Your task to perform on an android device: toggle pop-ups in chrome Image 0: 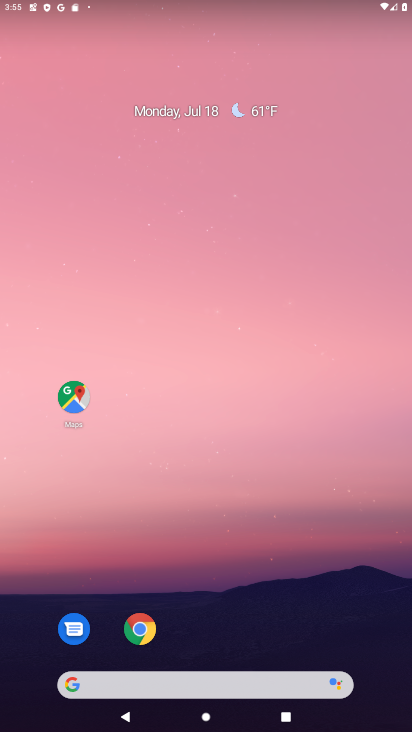
Step 0: click (147, 628)
Your task to perform on an android device: toggle pop-ups in chrome Image 1: 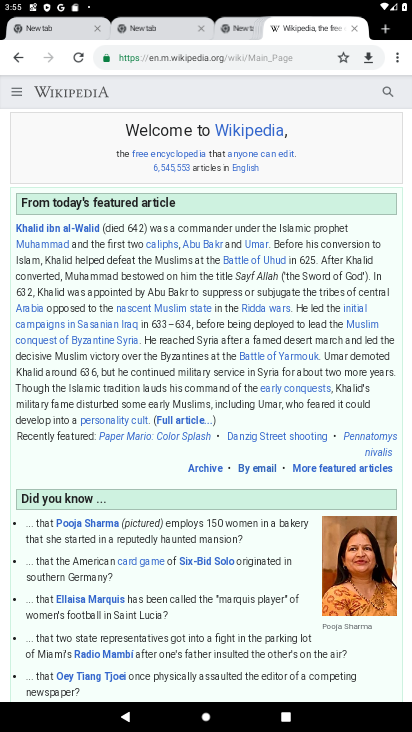
Step 1: click (402, 50)
Your task to perform on an android device: toggle pop-ups in chrome Image 2: 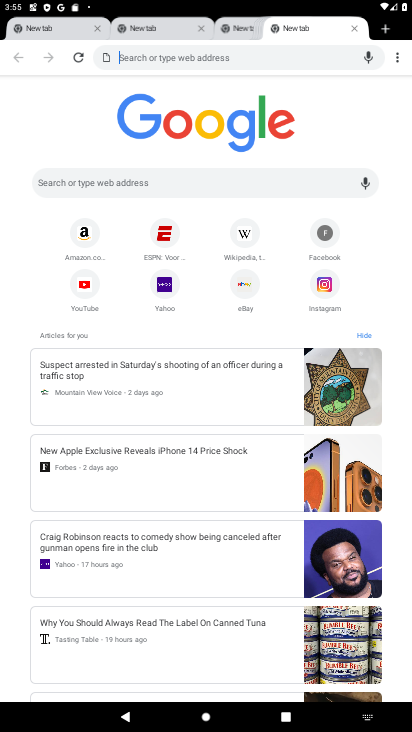
Step 2: click (395, 53)
Your task to perform on an android device: toggle pop-ups in chrome Image 3: 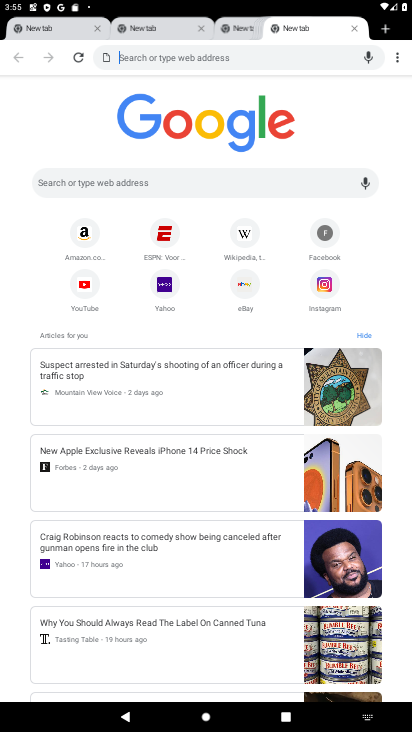
Step 3: click (392, 61)
Your task to perform on an android device: toggle pop-ups in chrome Image 4: 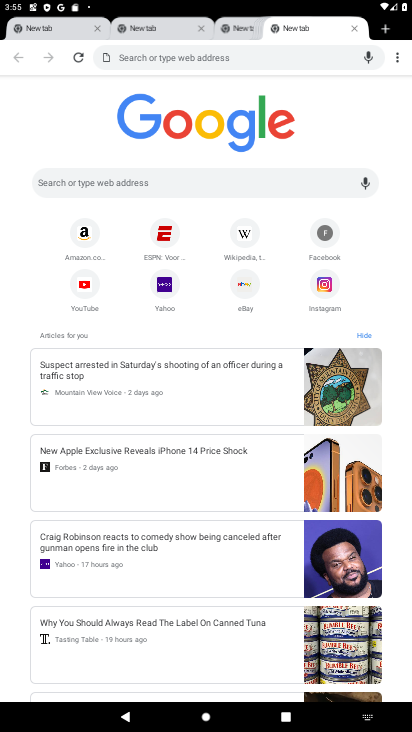
Step 4: click (395, 59)
Your task to perform on an android device: toggle pop-ups in chrome Image 5: 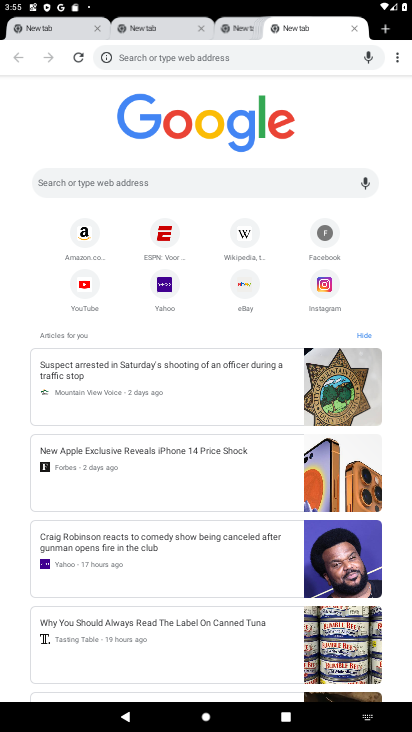
Step 5: click (354, 22)
Your task to perform on an android device: toggle pop-ups in chrome Image 6: 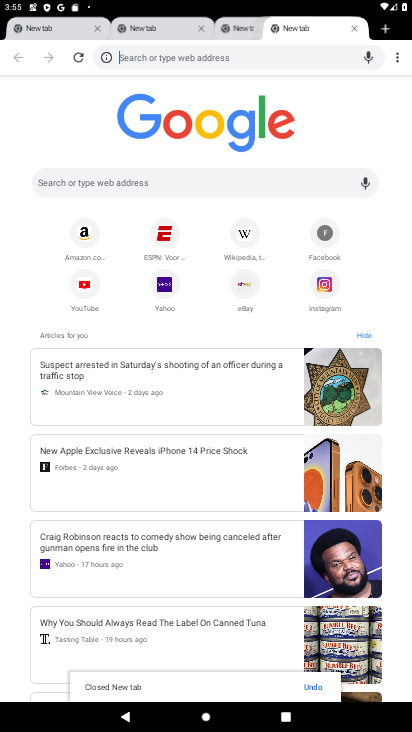
Step 6: click (354, 30)
Your task to perform on an android device: toggle pop-ups in chrome Image 7: 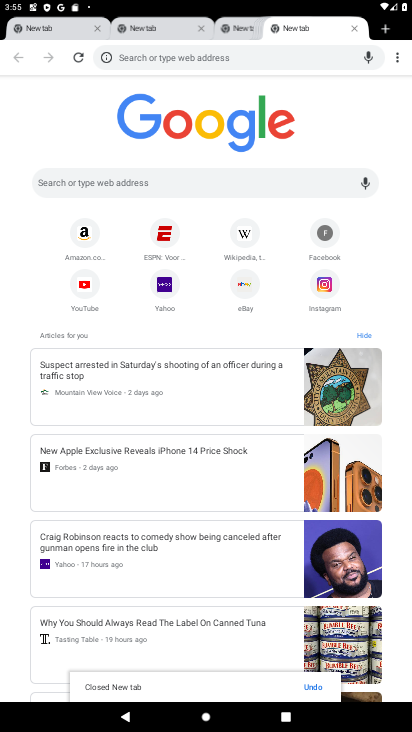
Step 7: click (354, 30)
Your task to perform on an android device: toggle pop-ups in chrome Image 8: 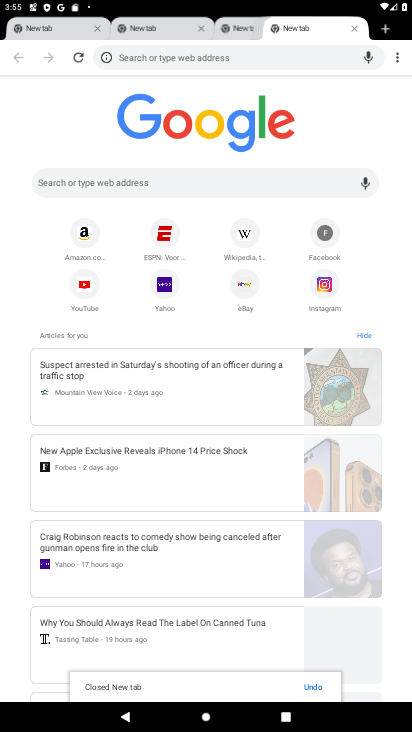
Step 8: click (354, 30)
Your task to perform on an android device: toggle pop-ups in chrome Image 9: 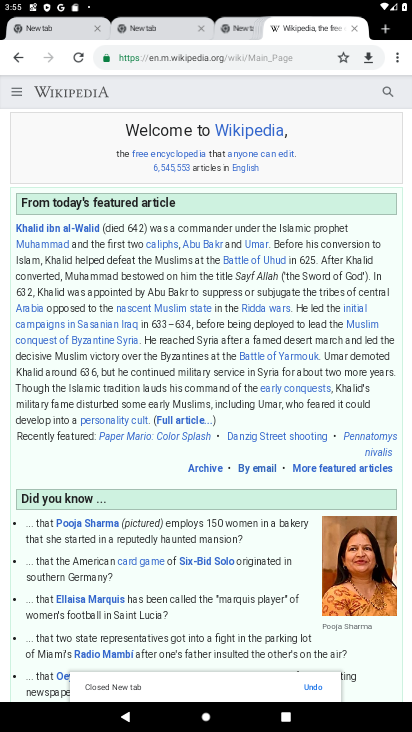
Step 9: click (354, 30)
Your task to perform on an android device: toggle pop-ups in chrome Image 10: 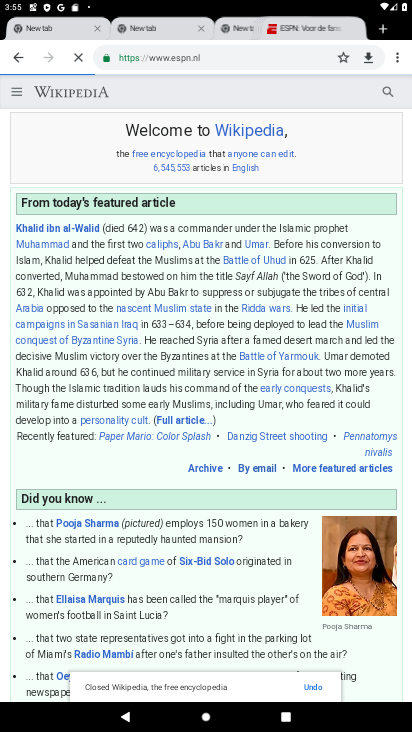
Step 10: click (354, 30)
Your task to perform on an android device: toggle pop-ups in chrome Image 11: 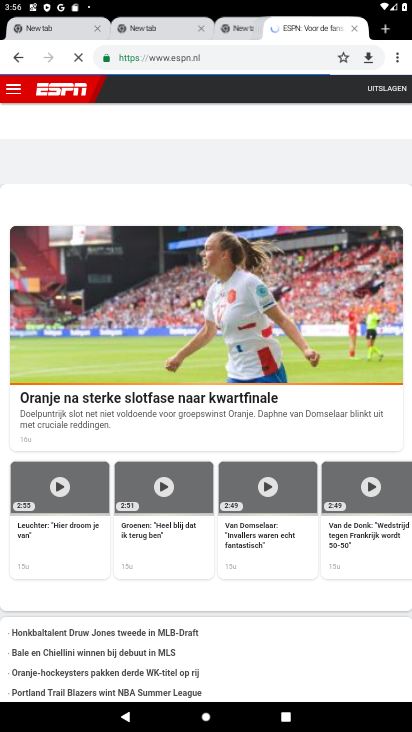
Step 11: click (358, 29)
Your task to perform on an android device: toggle pop-ups in chrome Image 12: 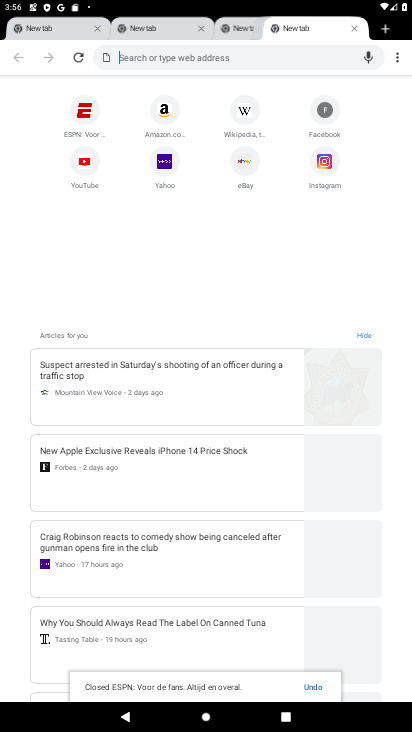
Step 12: click (357, 32)
Your task to perform on an android device: toggle pop-ups in chrome Image 13: 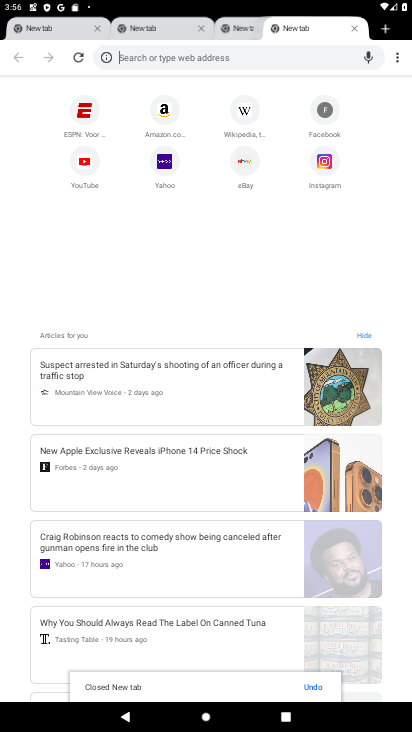
Step 13: click (357, 26)
Your task to perform on an android device: toggle pop-ups in chrome Image 14: 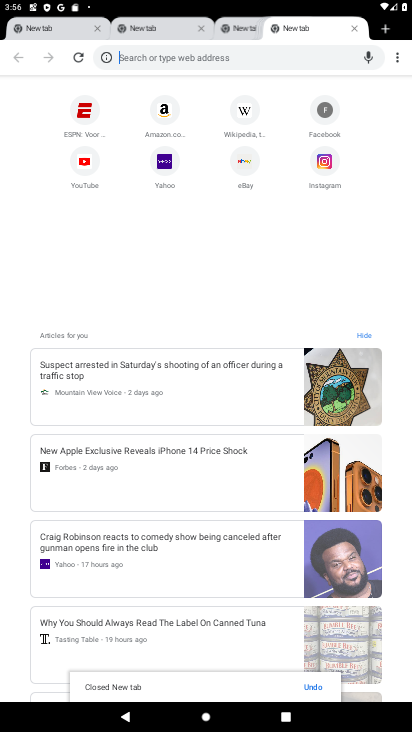
Step 14: click (357, 26)
Your task to perform on an android device: toggle pop-ups in chrome Image 15: 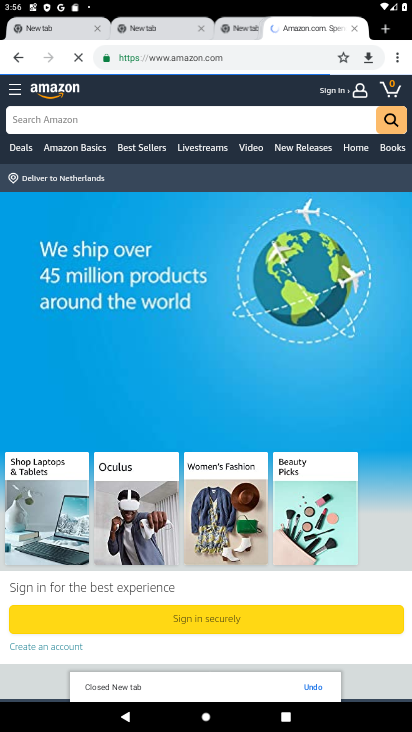
Step 15: click (357, 28)
Your task to perform on an android device: toggle pop-ups in chrome Image 16: 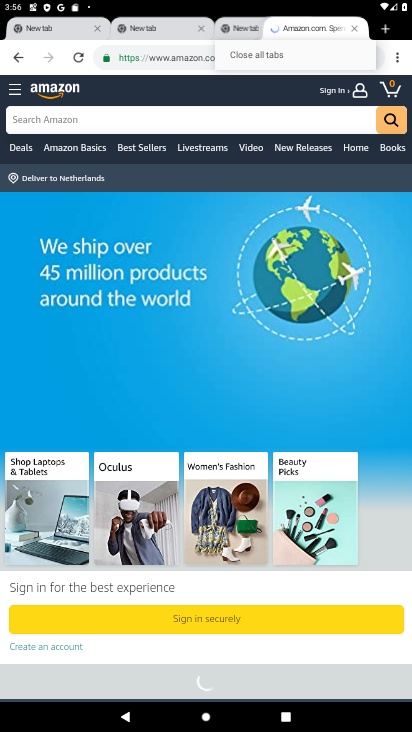
Step 16: click (352, 24)
Your task to perform on an android device: toggle pop-ups in chrome Image 17: 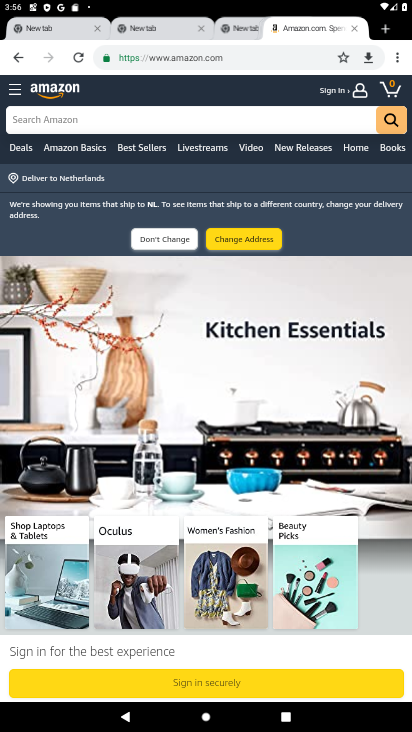
Step 17: click (203, 25)
Your task to perform on an android device: toggle pop-ups in chrome Image 18: 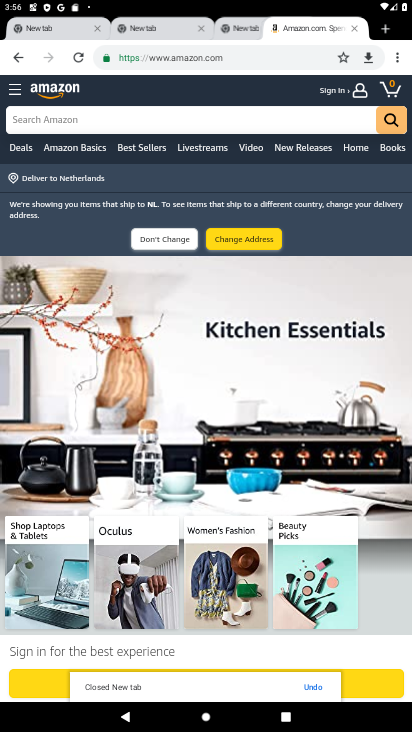
Step 18: click (205, 23)
Your task to perform on an android device: toggle pop-ups in chrome Image 19: 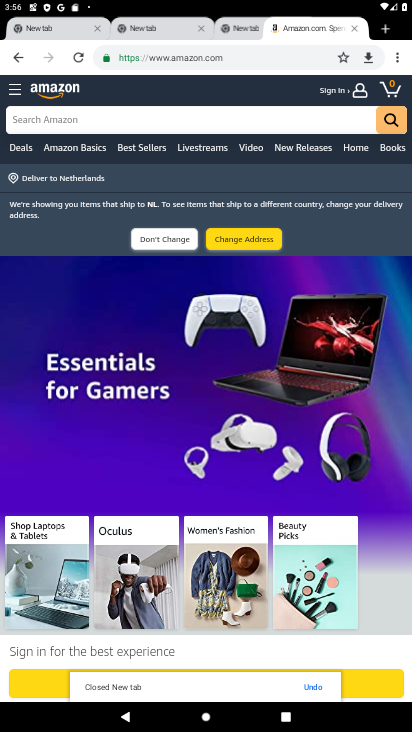
Step 19: click (201, 28)
Your task to perform on an android device: toggle pop-ups in chrome Image 20: 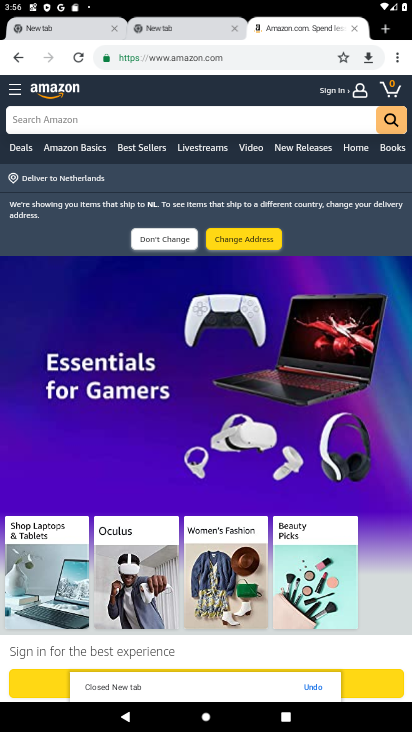
Step 20: click (233, 28)
Your task to perform on an android device: toggle pop-ups in chrome Image 21: 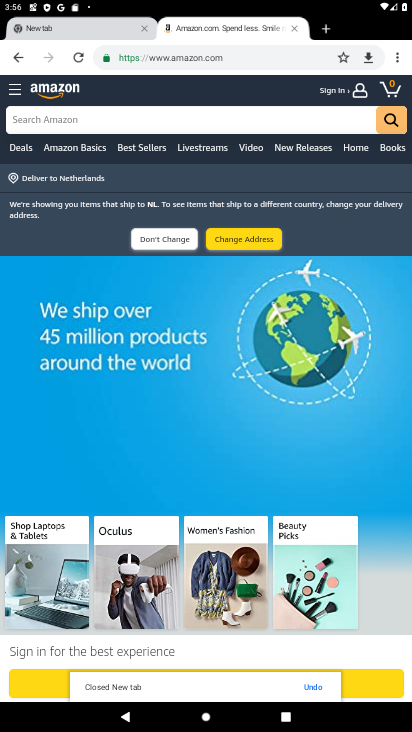
Step 21: click (297, 29)
Your task to perform on an android device: toggle pop-ups in chrome Image 22: 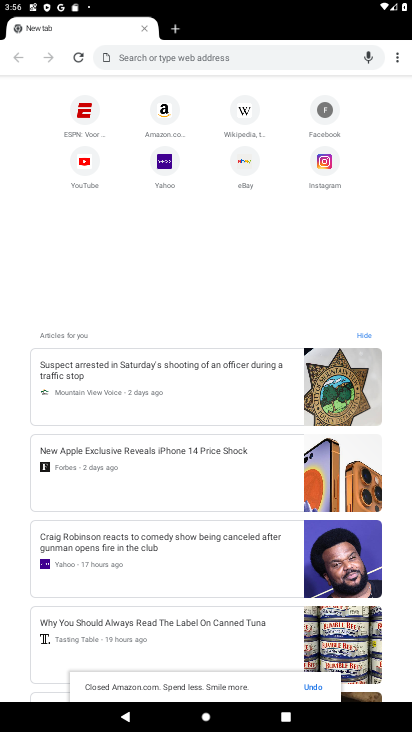
Step 22: click (397, 56)
Your task to perform on an android device: toggle pop-ups in chrome Image 23: 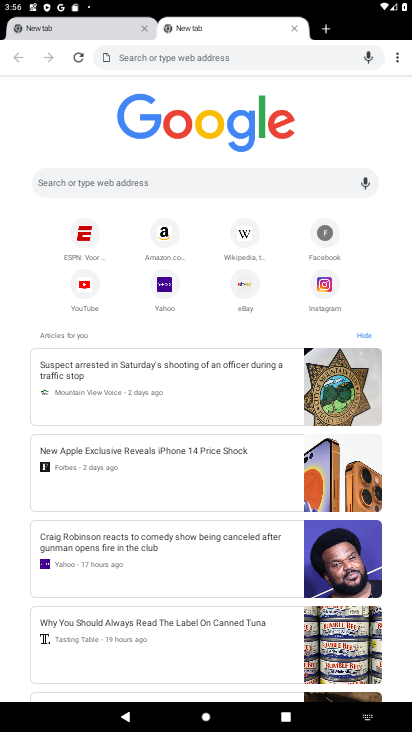
Step 23: click (395, 60)
Your task to perform on an android device: toggle pop-ups in chrome Image 24: 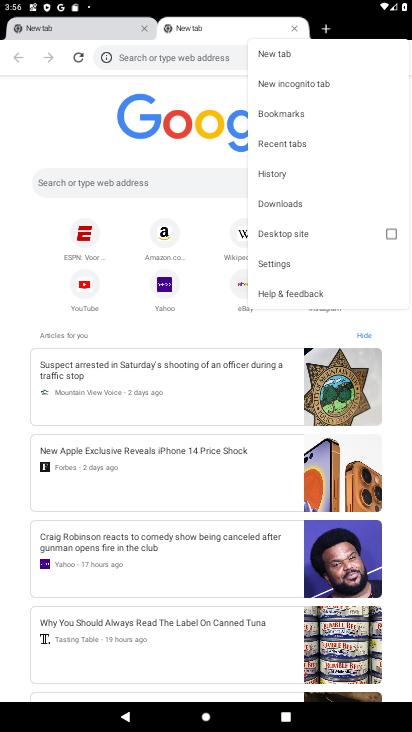
Step 24: click (278, 263)
Your task to perform on an android device: toggle pop-ups in chrome Image 25: 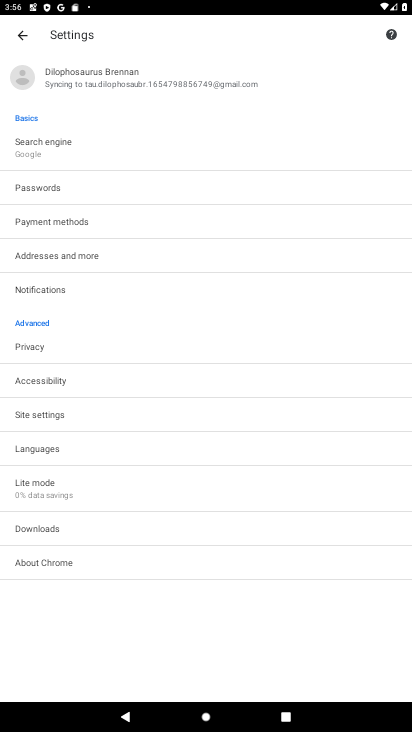
Step 25: click (37, 407)
Your task to perform on an android device: toggle pop-ups in chrome Image 26: 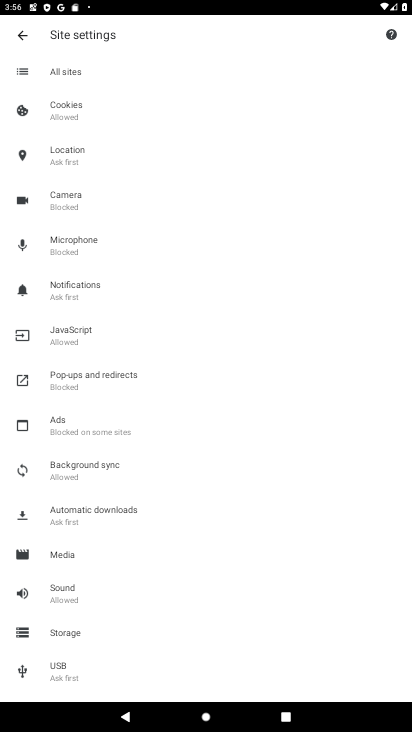
Step 26: click (104, 385)
Your task to perform on an android device: toggle pop-ups in chrome Image 27: 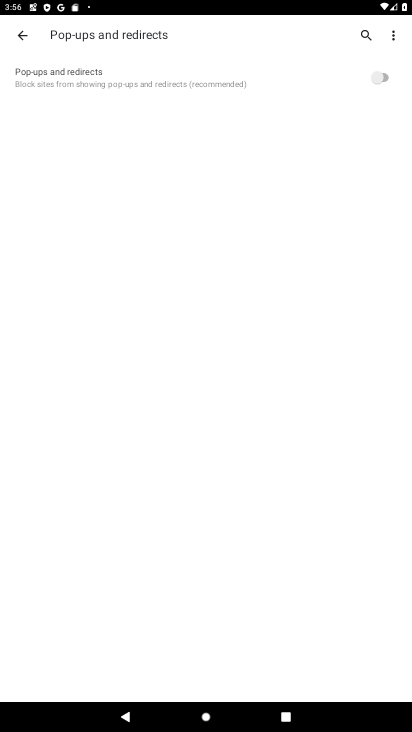
Step 27: click (385, 77)
Your task to perform on an android device: toggle pop-ups in chrome Image 28: 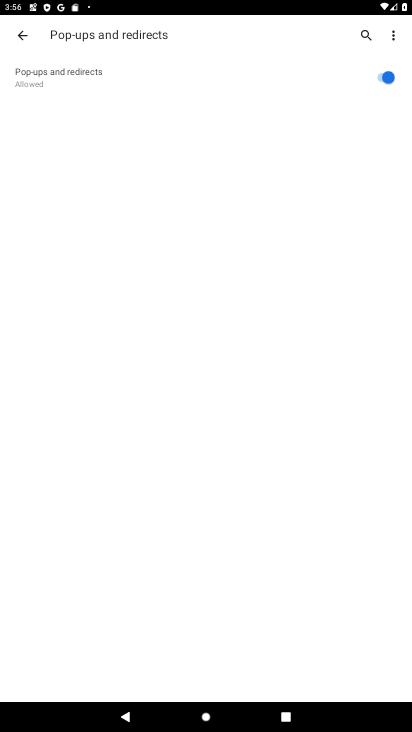
Step 28: task complete